Your task to perform on an android device: Go to CNN.com Image 0: 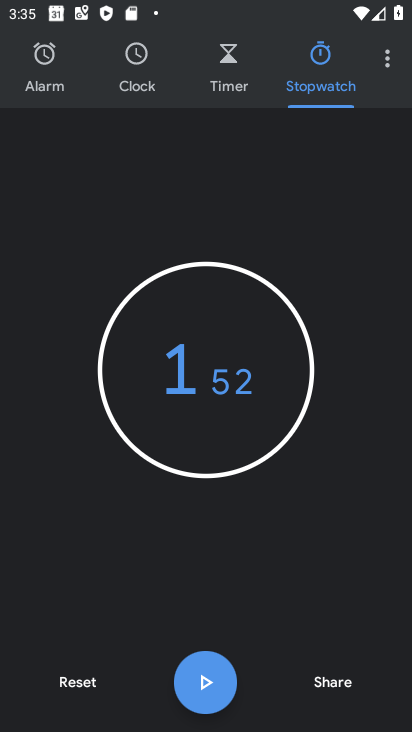
Step 0: press home button
Your task to perform on an android device: Go to CNN.com Image 1: 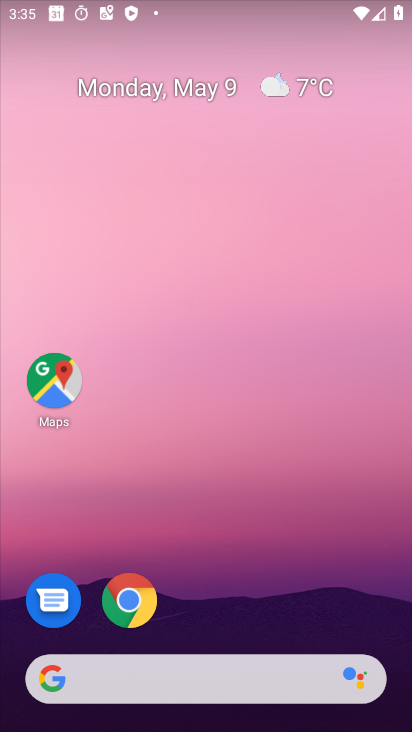
Step 1: drag from (279, 503) to (275, 122)
Your task to perform on an android device: Go to CNN.com Image 2: 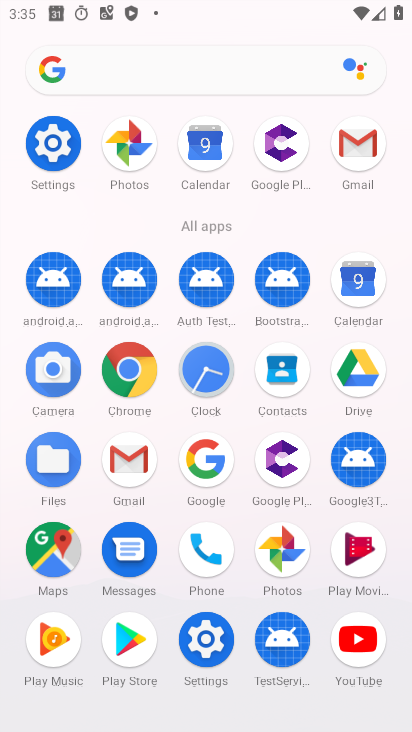
Step 2: click (126, 373)
Your task to perform on an android device: Go to CNN.com Image 3: 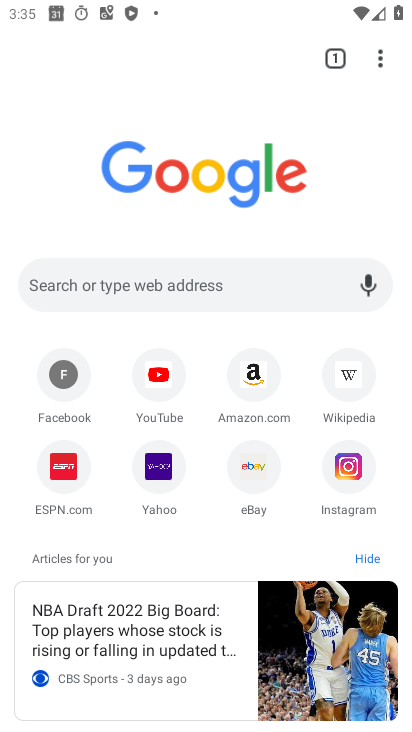
Step 3: click (229, 272)
Your task to perform on an android device: Go to CNN.com Image 4: 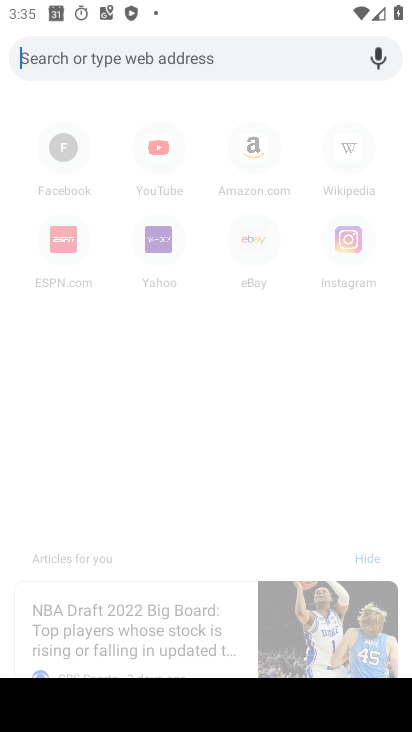
Step 4: click (210, 52)
Your task to perform on an android device: Go to CNN.com Image 5: 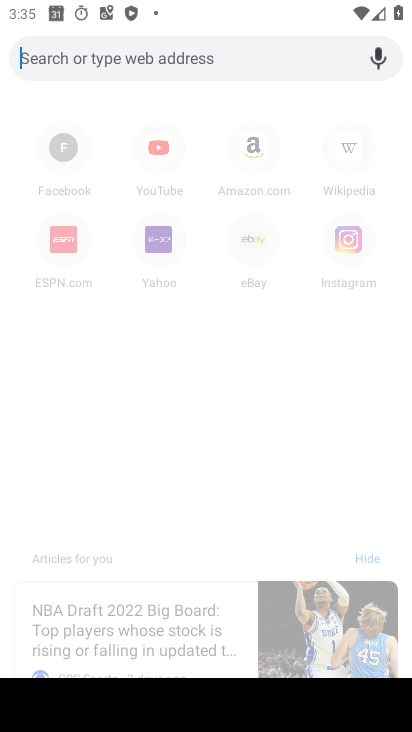
Step 5: type "cnn.com"
Your task to perform on an android device: Go to CNN.com Image 6: 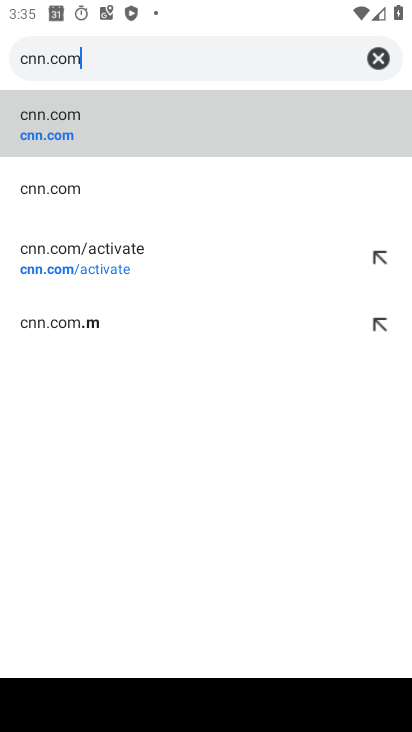
Step 6: click (38, 126)
Your task to perform on an android device: Go to CNN.com Image 7: 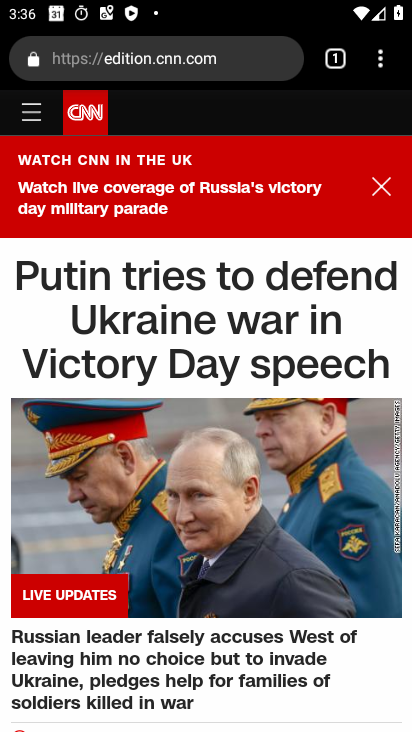
Step 7: task complete